Your task to perform on an android device: clear all cookies in the chrome app Image 0: 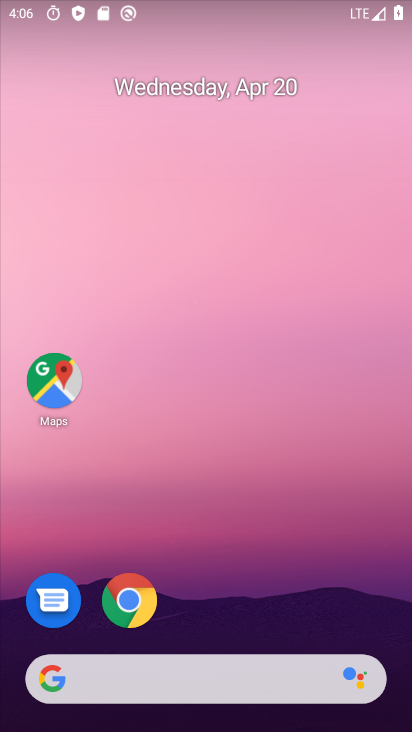
Step 0: click (301, 171)
Your task to perform on an android device: clear all cookies in the chrome app Image 1: 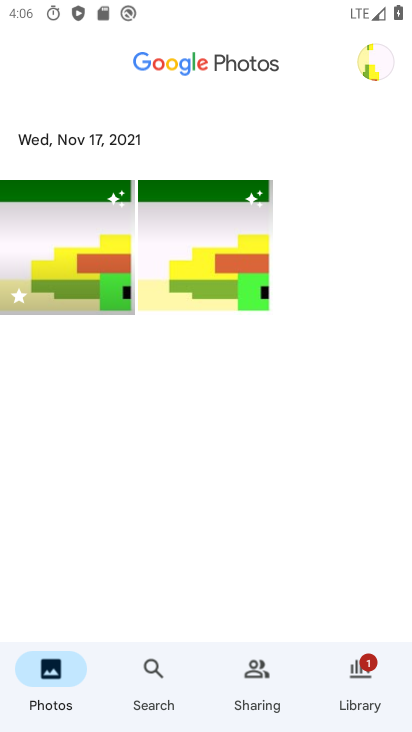
Step 1: press home button
Your task to perform on an android device: clear all cookies in the chrome app Image 2: 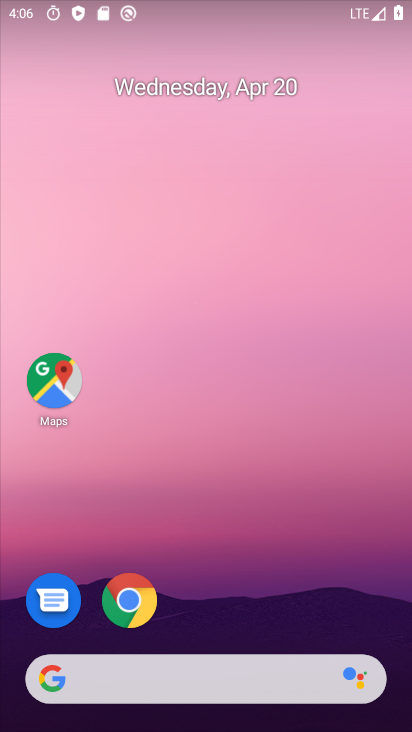
Step 2: drag from (289, 592) to (300, 162)
Your task to perform on an android device: clear all cookies in the chrome app Image 3: 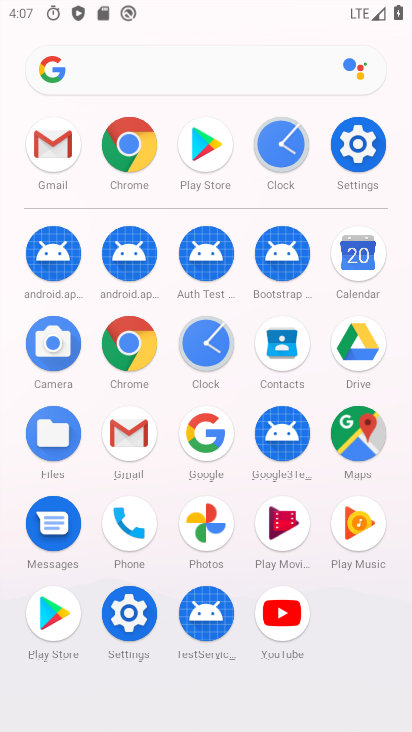
Step 3: click (140, 352)
Your task to perform on an android device: clear all cookies in the chrome app Image 4: 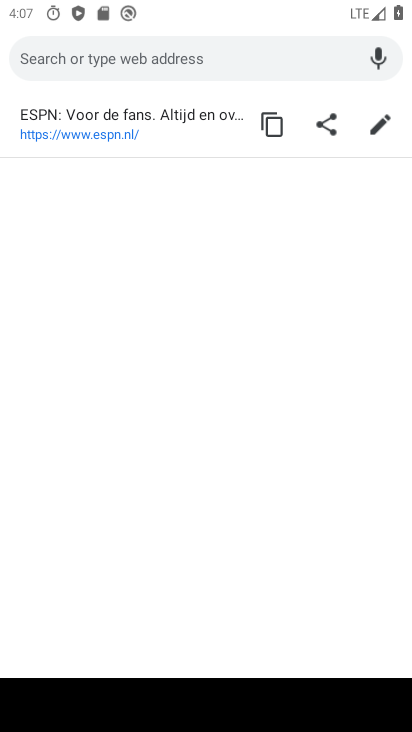
Step 4: press back button
Your task to perform on an android device: clear all cookies in the chrome app Image 5: 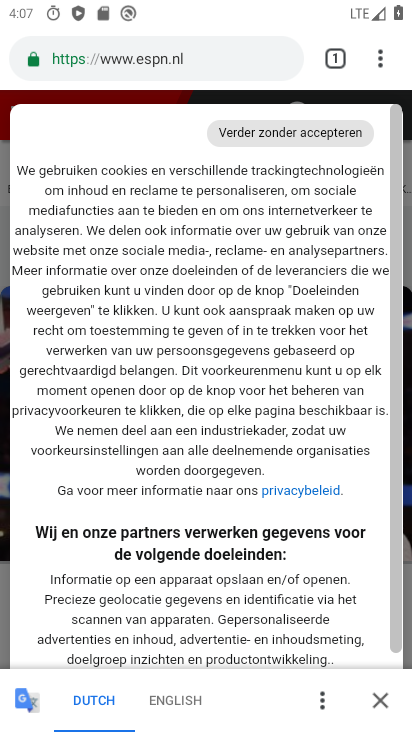
Step 5: drag from (383, 55) to (203, 396)
Your task to perform on an android device: clear all cookies in the chrome app Image 6: 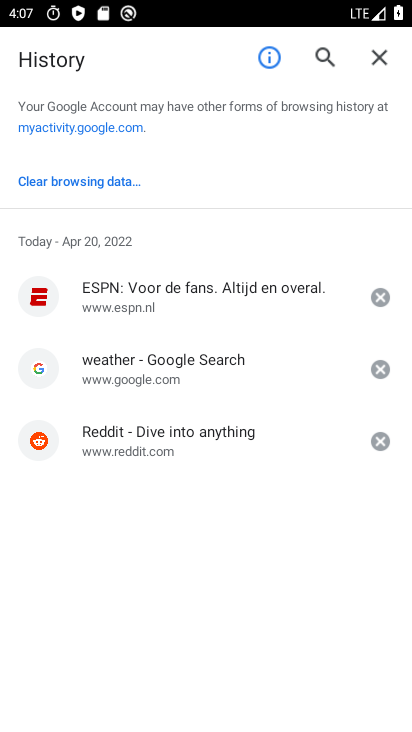
Step 6: click (101, 177)
Your task to perform on an android device: clear all cookies in the chrome app Image 7: 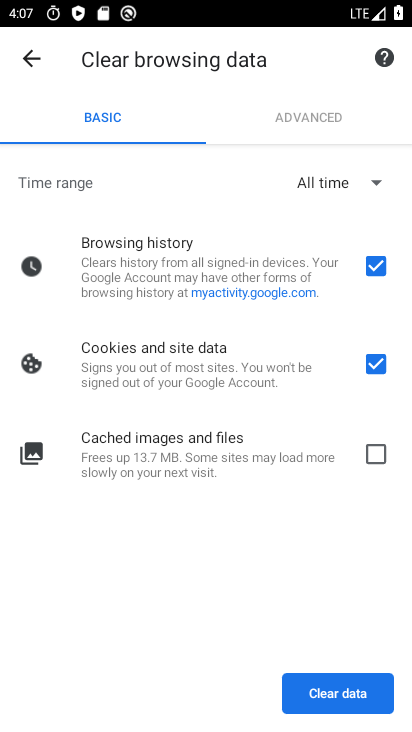
Step 7: click (322, 692)
Your task to perform on an android device: clear all cookies in the chrome app Image 8: 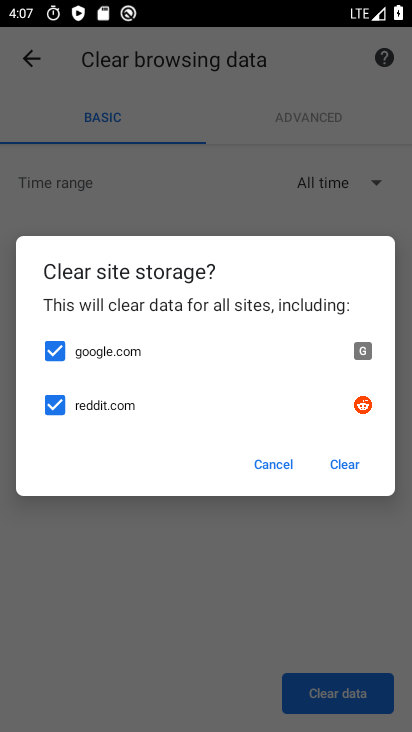
Step 8: click (338, 466)
Your task to perform on an android device: clear all cookies in the chrome app Image 9: 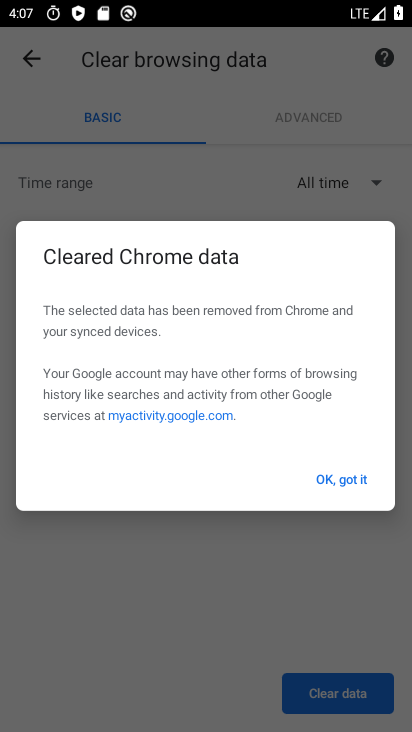
Step 9: task complete